Your task to perform on an android device: Do I have any events this weekend? Image 0: 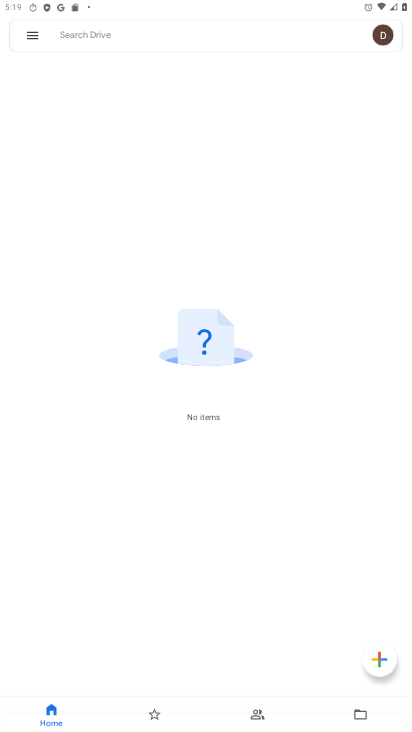
Step 0: press home button
Your task to perform on an android device: Do I have any events this weekend? Image 1: 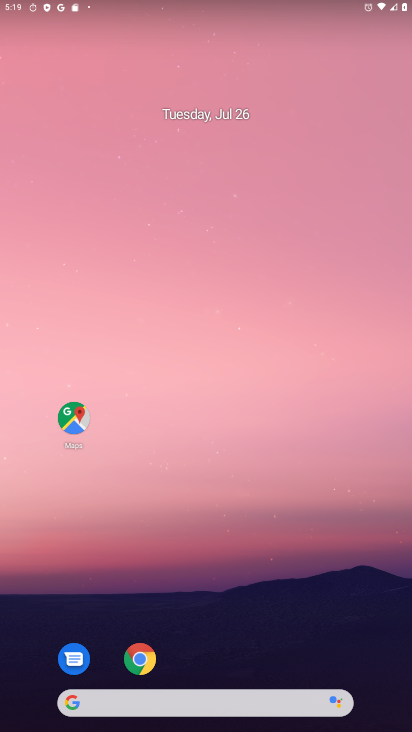
Step 1: click (197, 61)
Your task to perform on an android device: Do I have any events this weekend? Image 2: 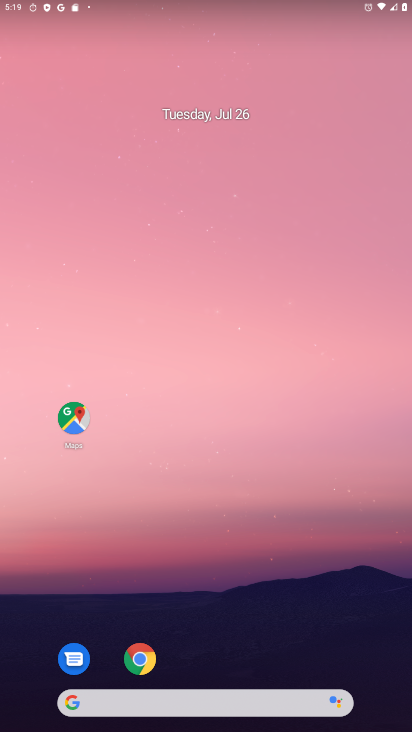
Step 2: drag from (218, 674) to (209, 1)
Your task to perform on an android device: Do I have any events this weekend? Image 3: 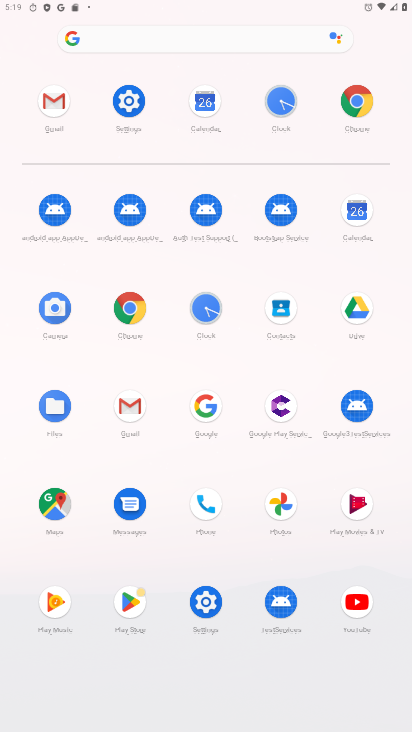
Step 3: click (356, 208)
Your task to perform on an android device: Do I have any events this weekend? Image 4: 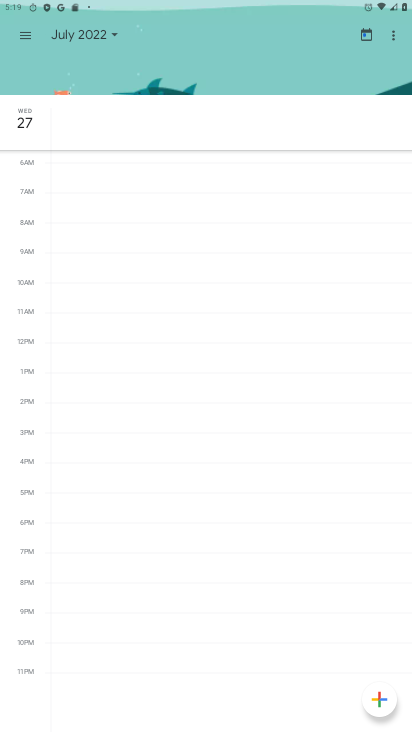
Step 4: click (107, 29)
Your task to perform on an android device: Do I have any events this weekend? Image 5: 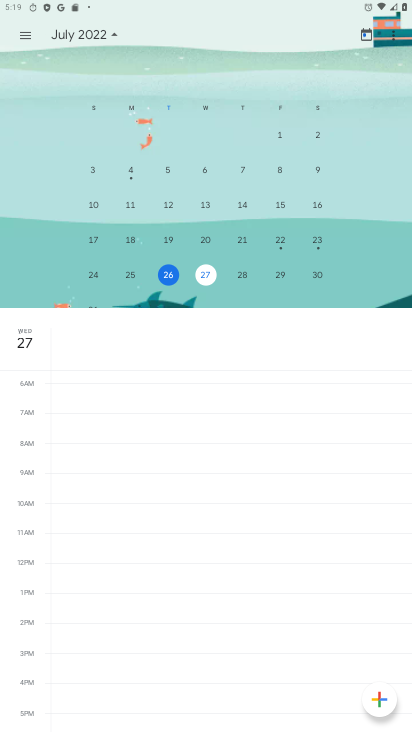
Step 5: click (24, 37)
Your task to perform on an android device: Do I have any events this weekend? Image 6: 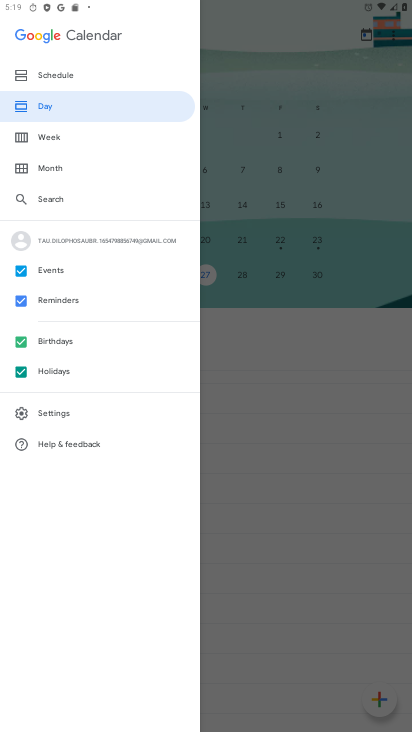
Step 6: click (38, 138)
Your task to perform on an android device: Do I have any events this weekend? Image 7: 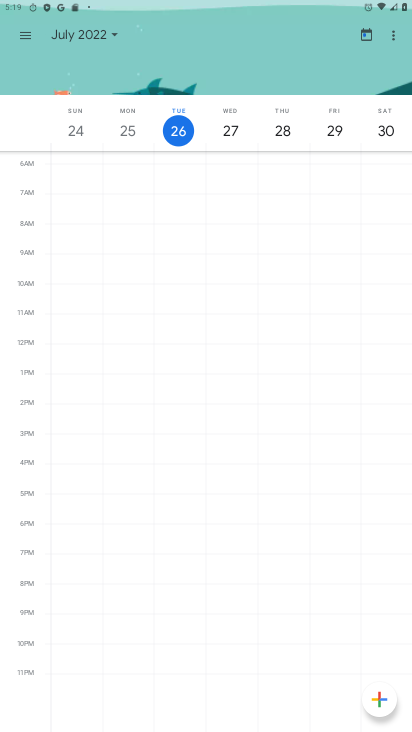
Step 7: click (30, 31)
Your task to perform on an android device: Do I have any events this weekend? Image 8: 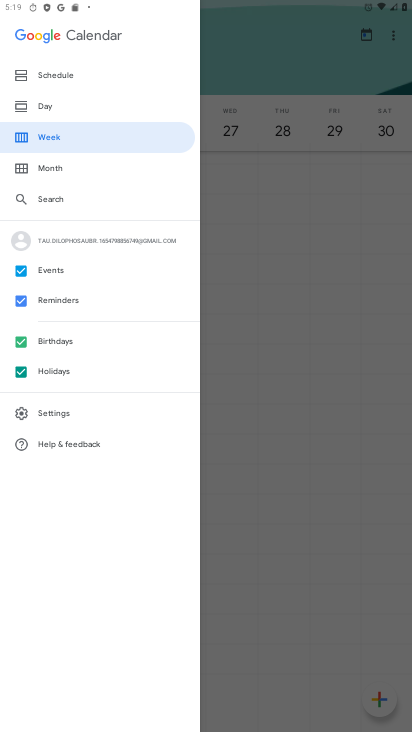
Step 8: click (20, 369)
Your task to perform on an android device: Do I have any events this weekend? Image 9: 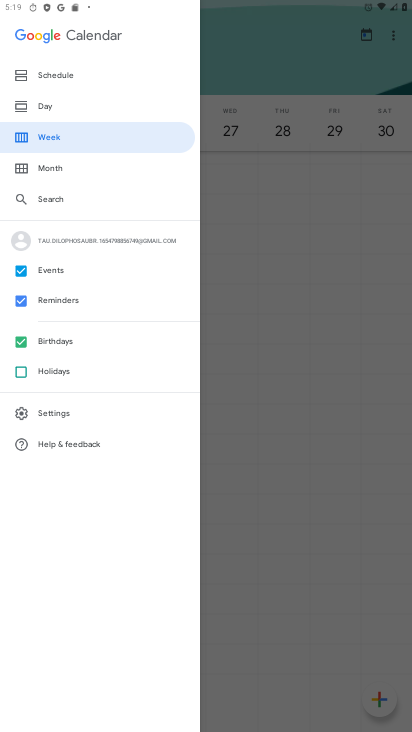
Step 9: click (20, 339)
Your task to perform on an android device: Do I have any events this weekend? Image 10: 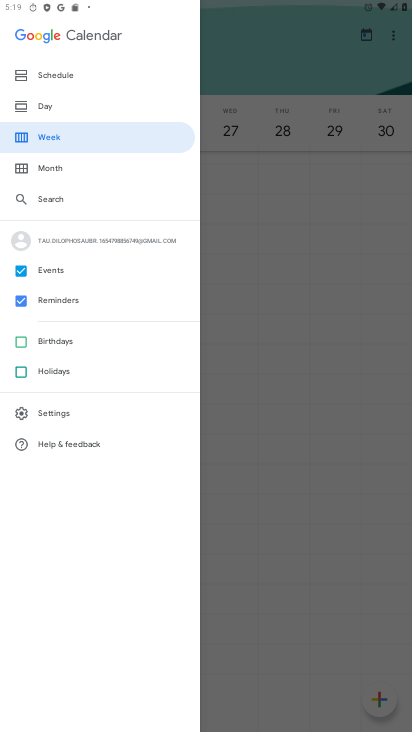
Step 10: click (19, 295)
Your task to perform on an android device: Do I have any events this weekend? Image 11: 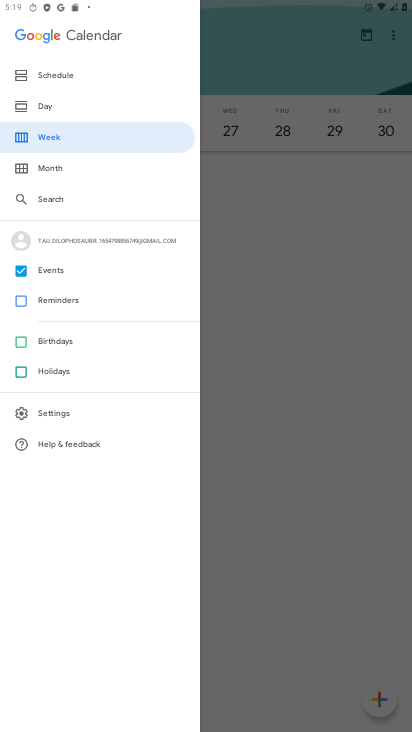
Step 11: click (35, 70)
Your task to perform on an android device: Do I have any events this weekend? Image 12: 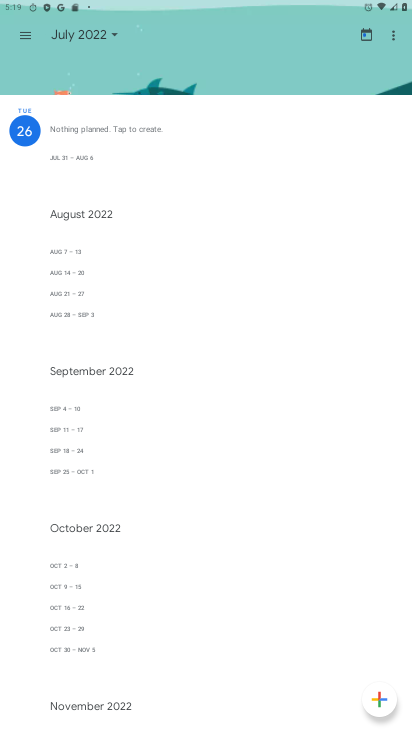
Step 12: task complete